Your task to perform on an android device: What's the weather going to be this weekend? Image 0: 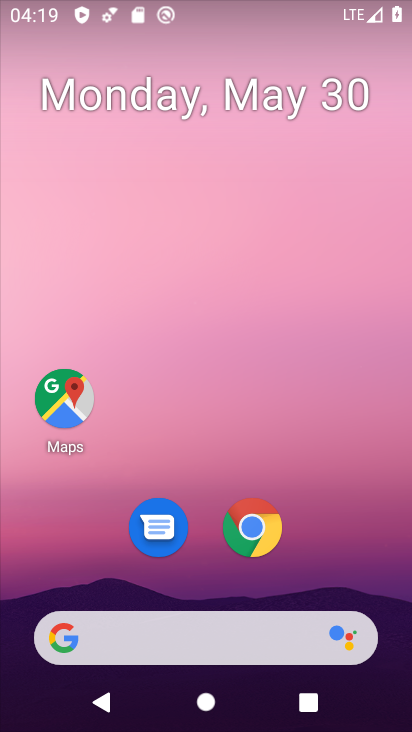
Step 0: drag from (233, 720) to (233, 596)
Your task to perform on an android device: What's the weather going to be this weekend? Image 1: 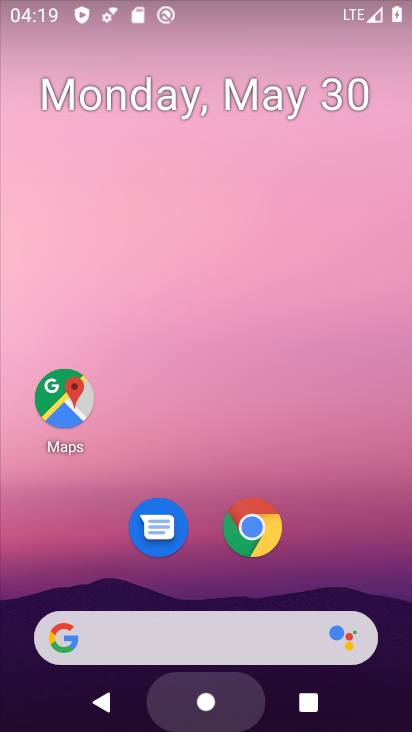
Step 1: click (234, 129)
Your task to perform on an android device: What's the weather going to be this weekend? Image 2: 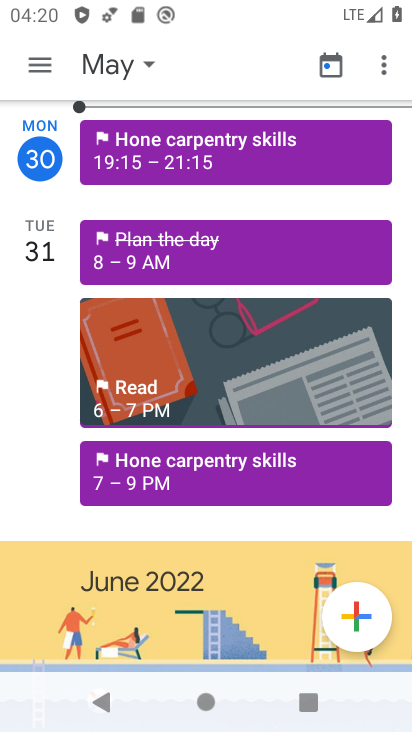
Step 2: press home button
Your task to perform on an android device: What's the weather going to be this weekend? Image 3: 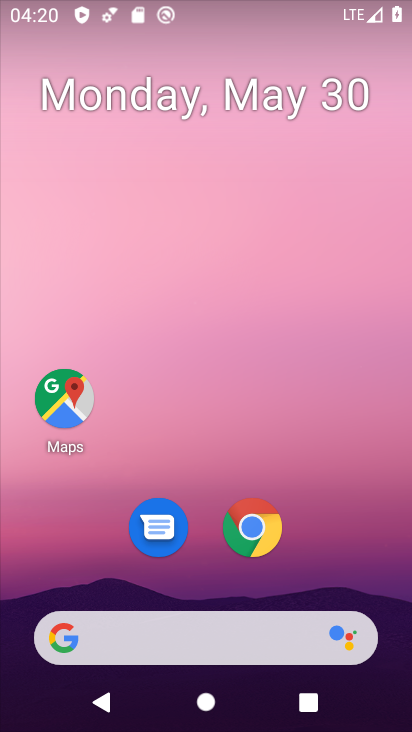
Step 3: drag from (231, 725) to (224, 1)
Your task to perform on an android device: What's the weather going to be this weekend? Image 4: 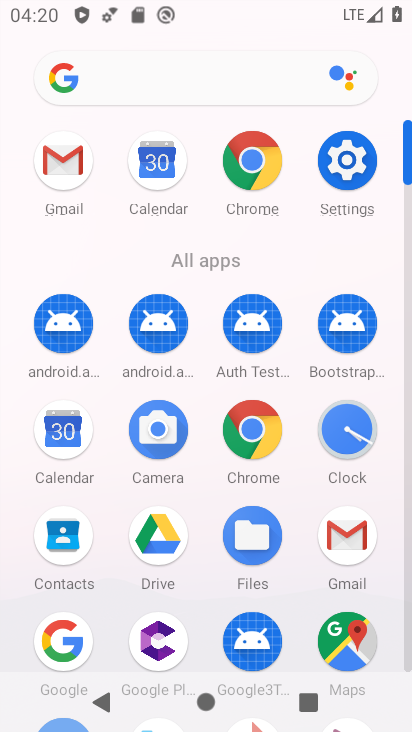
Step 4: click (70, 637)
Your task to perform on an android device: What's the weather going to be this weekend? Image 5: 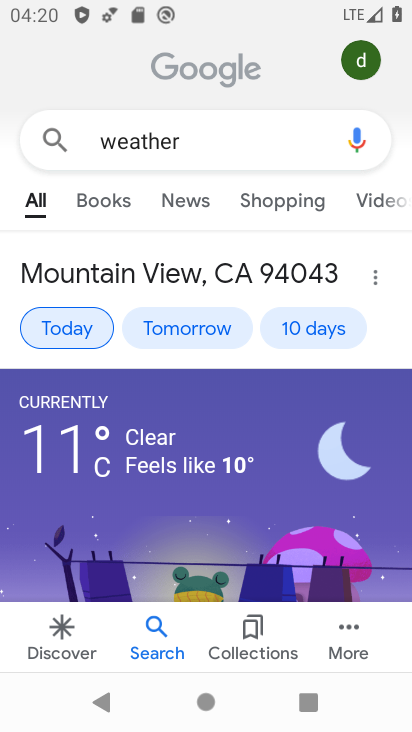
Step 5: click (310, 325)
Your task to perform on an android device: What's the weather going to be this weekend? Image 6: 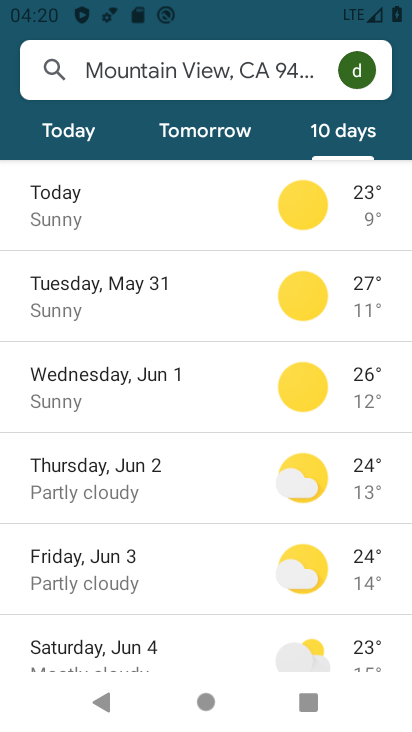
Step 6: drag from (126, 616) to (121, 283)
Your task to perform on an android device: What's the weather going to be this weekend? Image 7: 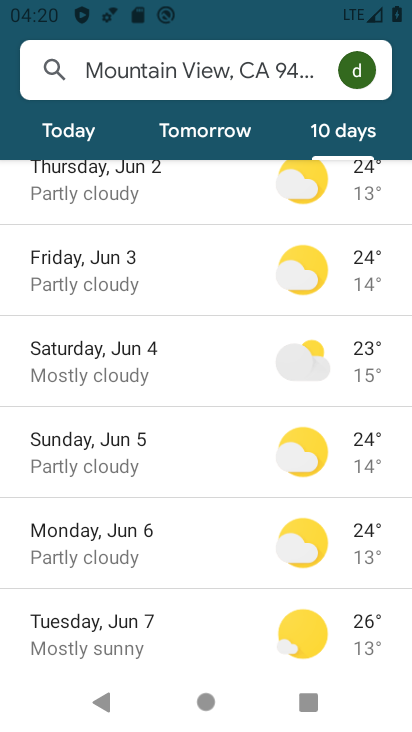
Step 7: click (103, 343)
Your task to perform on an android device: What's the weather going to be this weekend? Image 8: 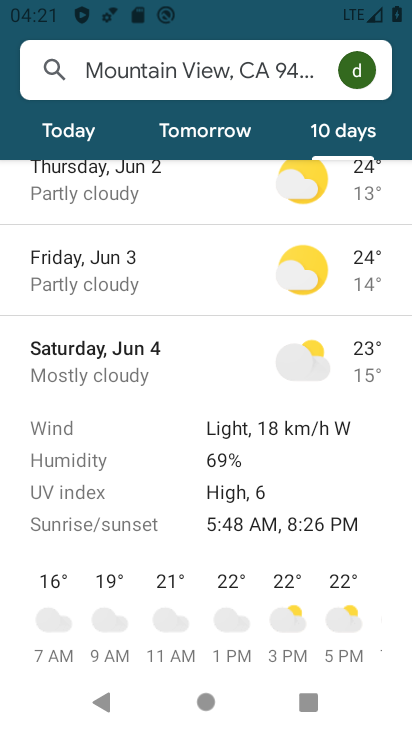
Step 8: task complete